Your task to perform on an android device: Go to sound settings Image 0: 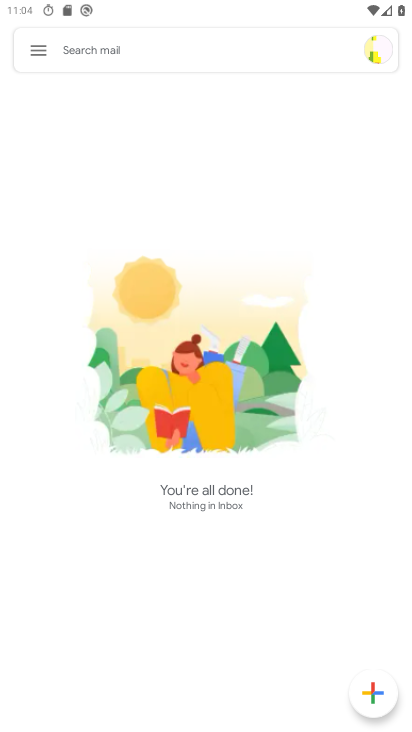
Step 0: press home button
Your task to perform on an android device: Go to sound settings Image 1: 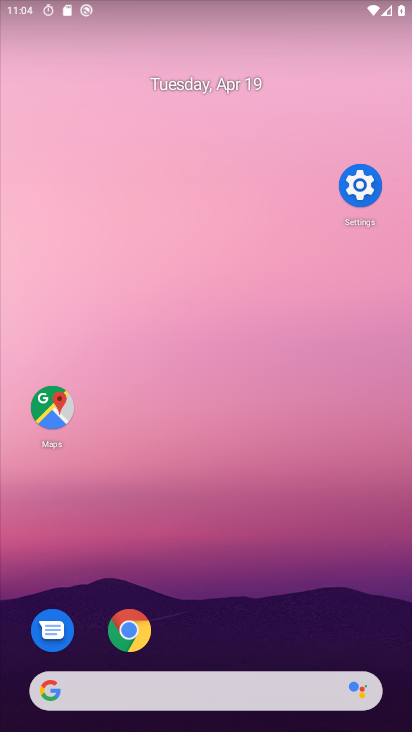
Step 1: drag from (268, 634) to (273, 253)
Your task to perform on an android device: Go to sound settings Image 2: 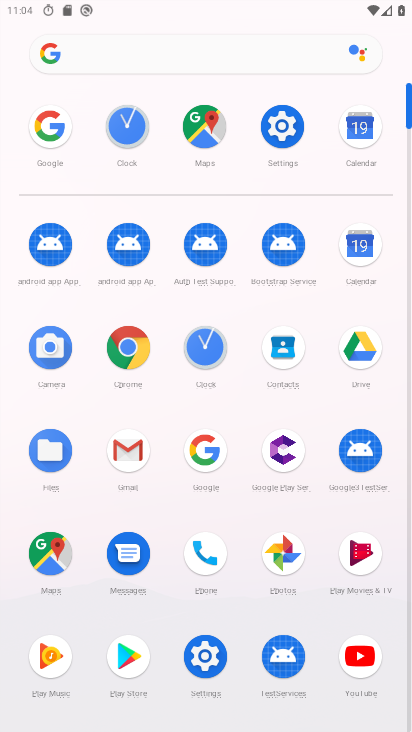
Step 2: click (291, 144)
Your task to perform on an android device: Go to sound settings Image 3: 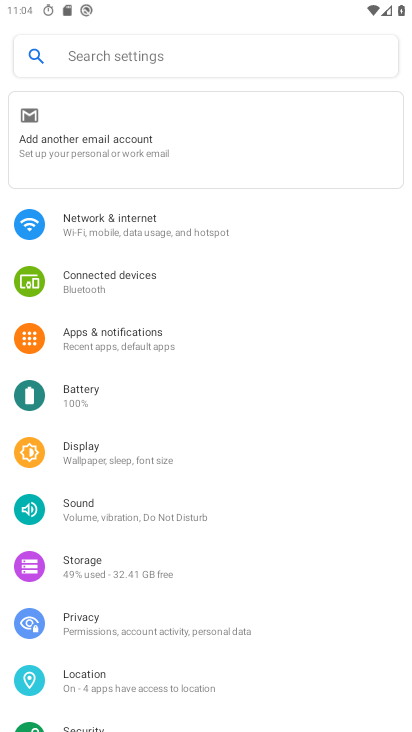
Step 3: click (140, 516)
Your task to perform on an android device: Go to sound settings Image 4: 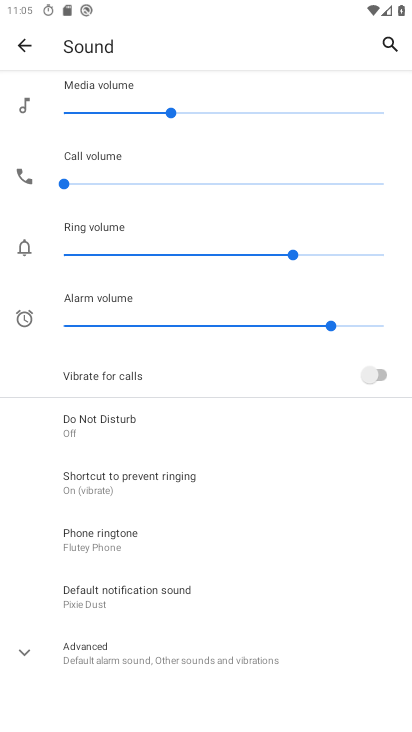
Step 4: task complete